Your task to perform on an android device: open a new tab in the chrome app Image 0: 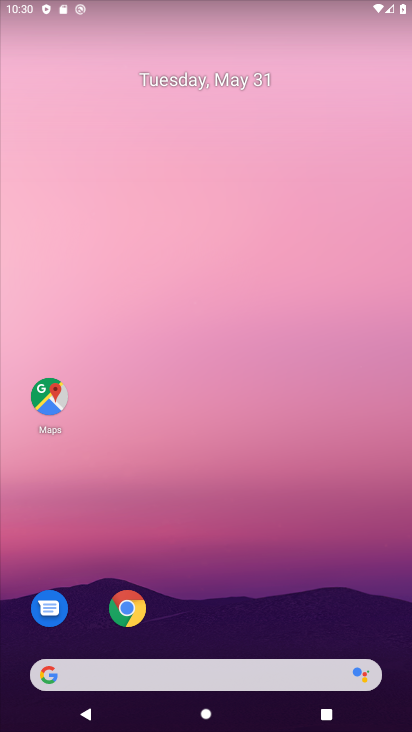
Step 0: press home button
Your task to perform on an android device: open a new tab in the chrome app Image 1: 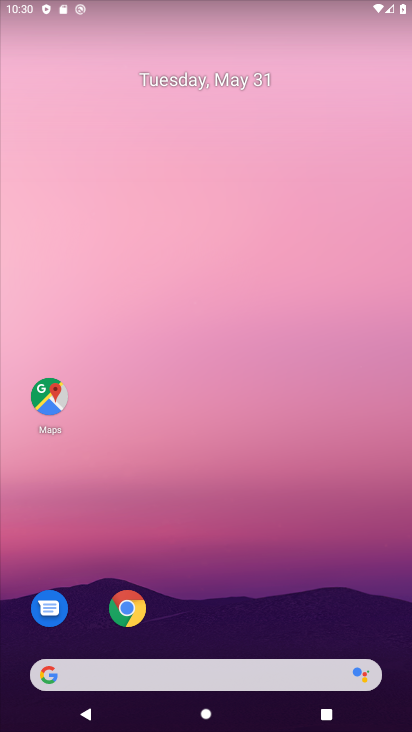
Step 1: drag from (361, 603) to (328, 163)
Your task to perform on an android device: open a new tab in the chrome app Image 2: 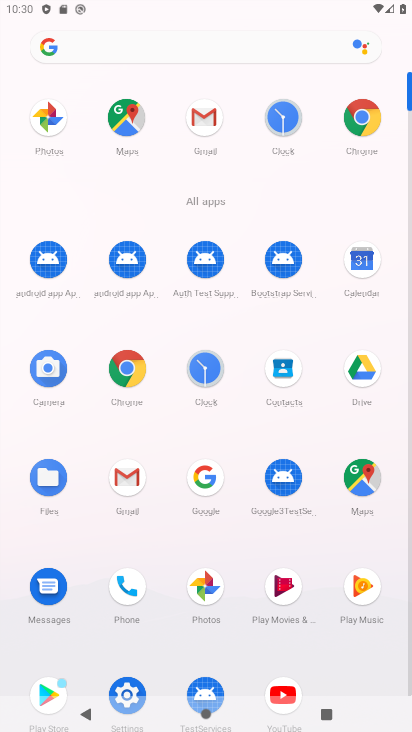
Step 2: click (108, 363)
Your task to perform on an android device: open a new tab in the chrome app Image 3: 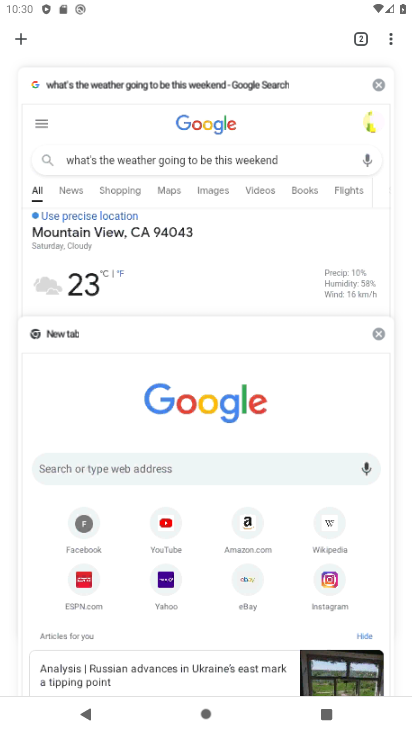
Step 3: click (16, 38)
Your task to perform on an android device: open a new tab in the chrome app Image 4: 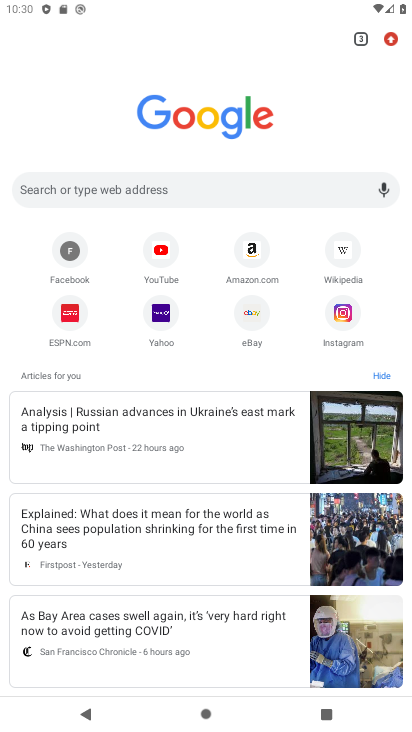
Step 4: task complete